Your task to perform on an android device: Show me productivity apps on the Play Store Image 0: 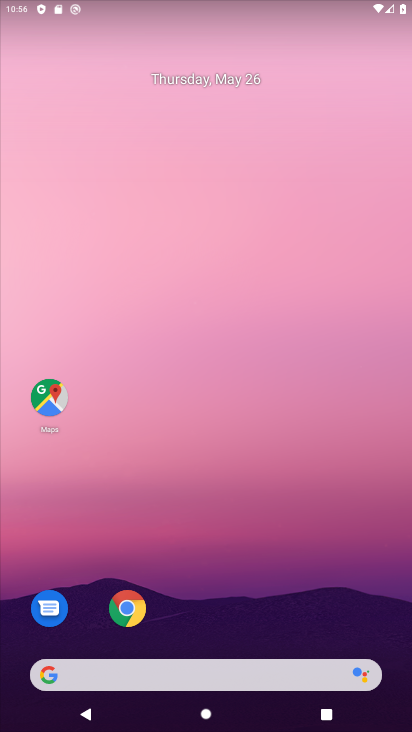
Step 0: drag from (235, 552) to (157, 33)
Your task to perform on an android device: Show me productivity apps on the Play Store Image 1: 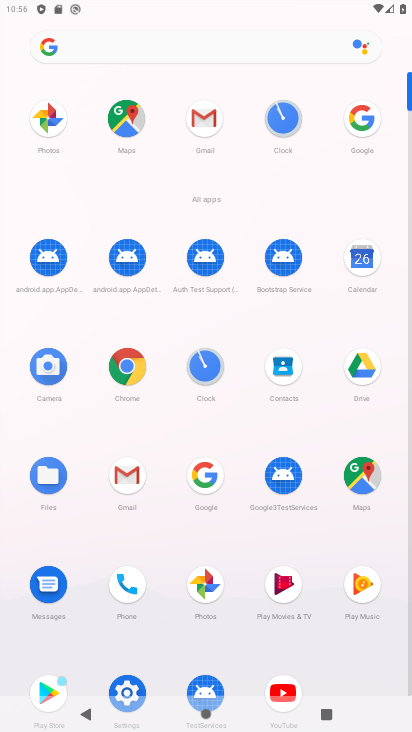
Step 1: click (42, 680)
Your task to perform on an android device: Show me productivity apps on the Play Store Image 2: 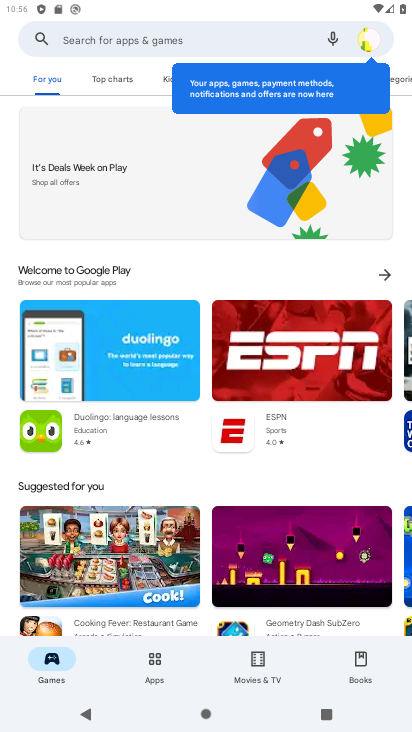
Step 2: click (160, 664)
Your task to perform on an android device: Show me productivity apps on the Play Store Image 3: 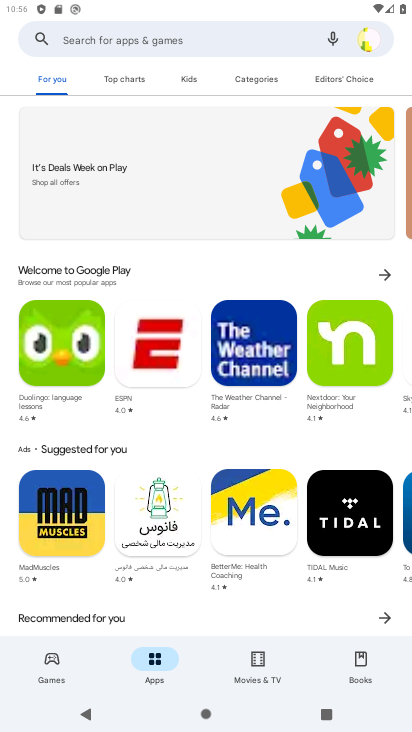
Step 3: task complete